Your task to perform on an android device: open wifi settings Image 0: 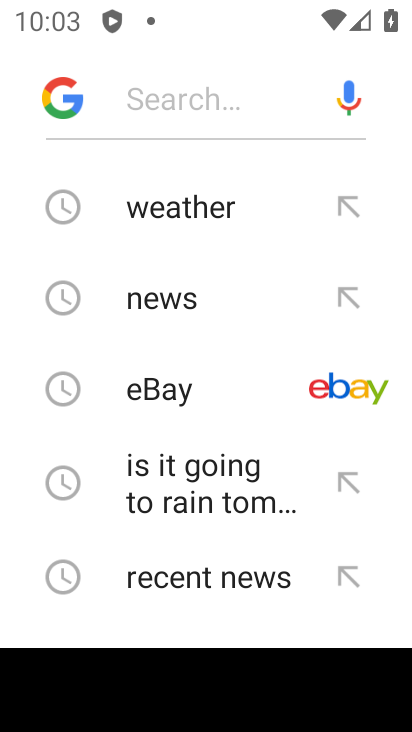
Step 0: press home button
Your task to perform on an android device: open wifi settings Image 1: 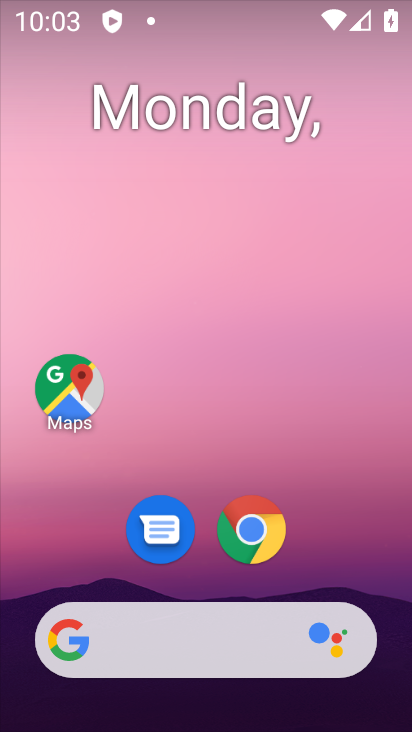
Step 1: drag from (305, 558) to (310, 123)
Your task to perform on an android device: open wifi settings Image 2: 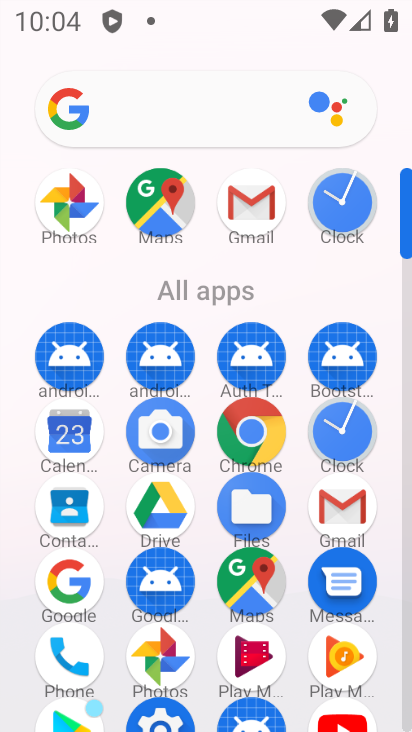
Step 2: click (147, 724)
Your task to perform on an android device: open wifi settings Image 3: 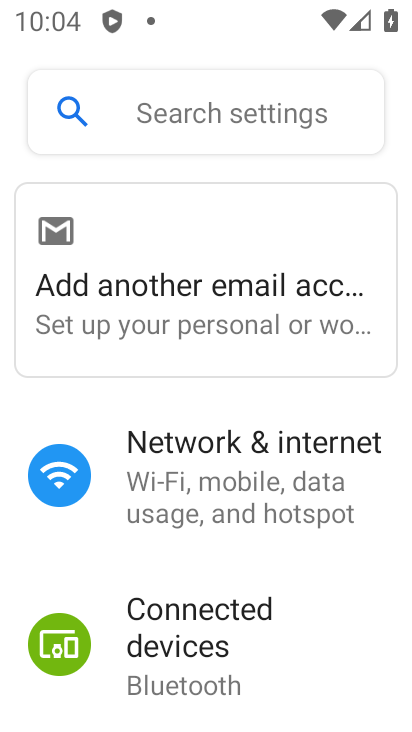
Step 3: click (212, 518)
Your task to perform on an android device: open wifi settings Image 4: 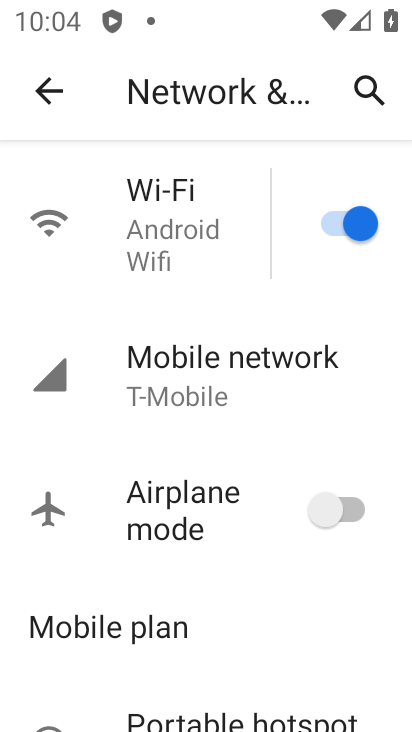
Step 4: click (192, 239)
Your task to perform on an android device: open wifi settings Image 5: 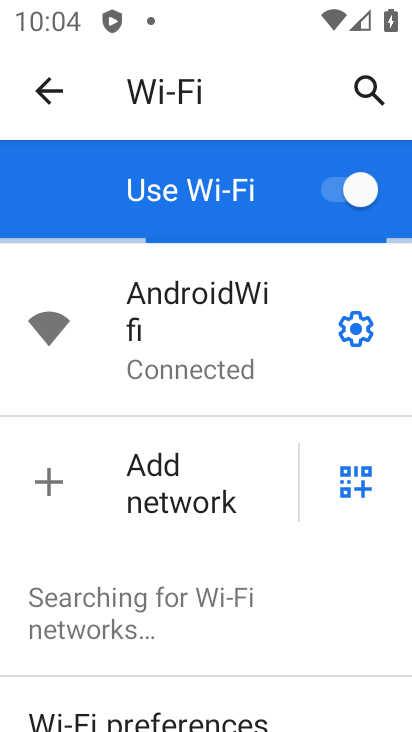
Step 5: task complete